Your task to perform on an android device: Search for pizza restaurants on Maps Image 0: 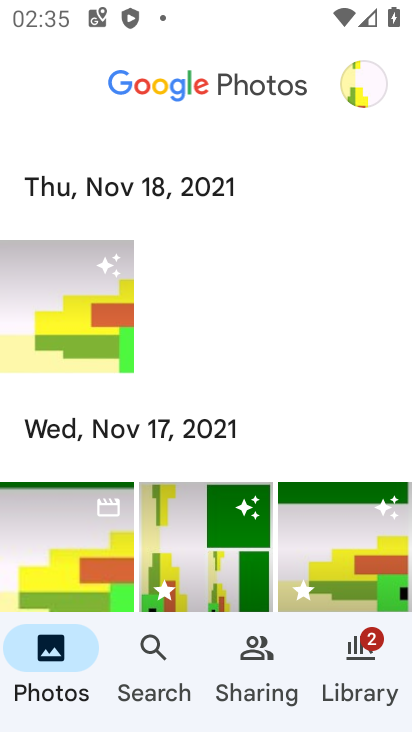
Step 0: press home button
Your task to perform on an android device: Search for pizza restaurants on Maps Image 1: 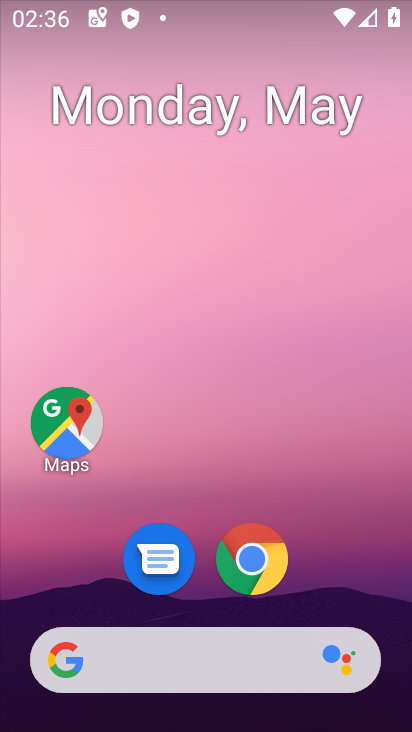
Step 1: click (92, 432)
Your task to perform on an android device: Search for pizza restaurants on Maps Image 2: 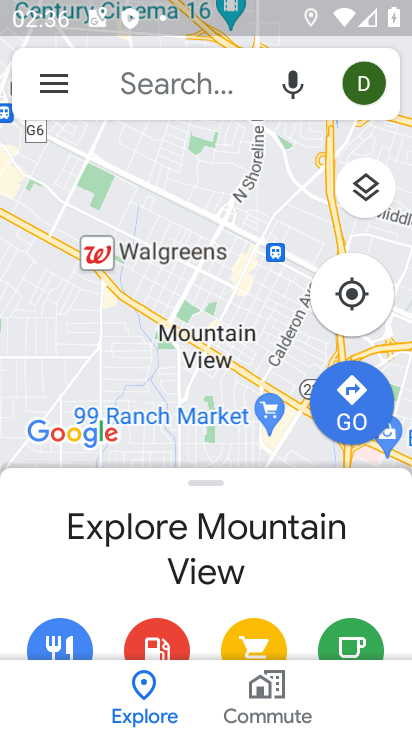
Step 2: click (162, 93)
Your task to perform on an android device: Search for pizza restaurants on Maps Image 3: 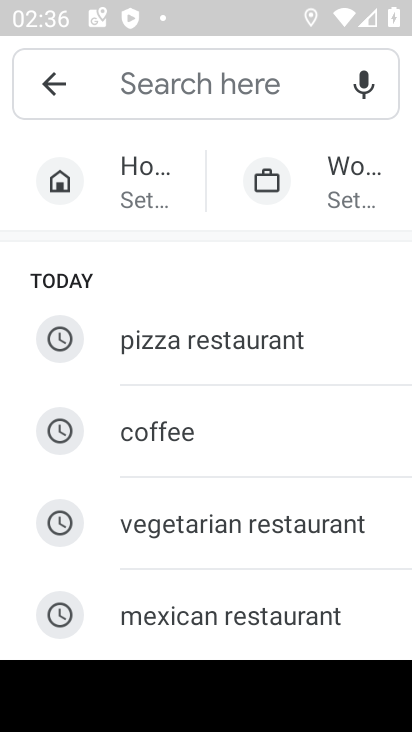
Step 3: click (274, 336)
Your task to perform on an android device: Search for pizza restaurants on Maps Image 4: 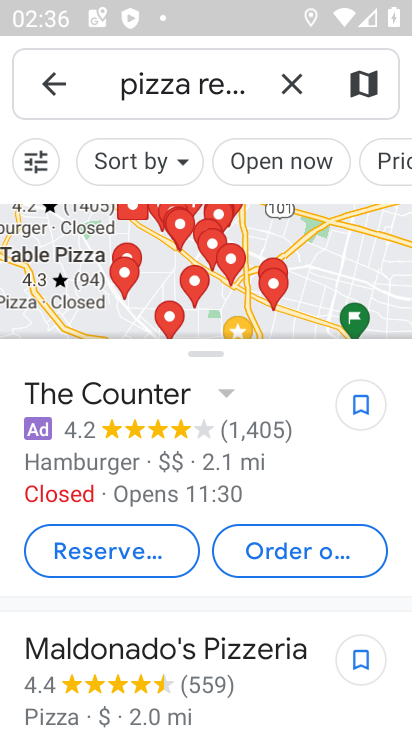
Step 4: task complete